Your task to perform on an android device: Open calendar and show me the first week of next month Image 0: 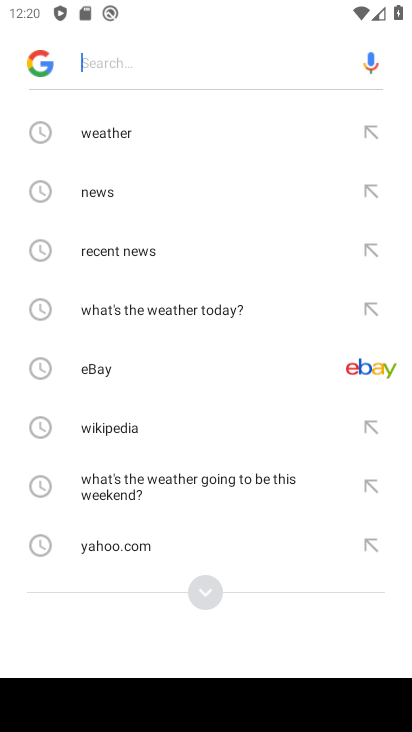
Step 0: press home button
Your task to perform on an android device: Open calendar and show me the first week of next month Image 1: 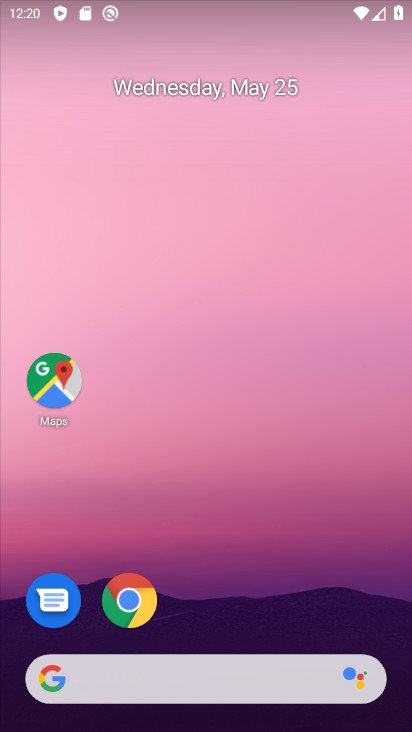
Step 1: drag from (266, 599) to (203, 108)
Your task to perform on an android device: Open calendar and show me the first week of next month Image 2: 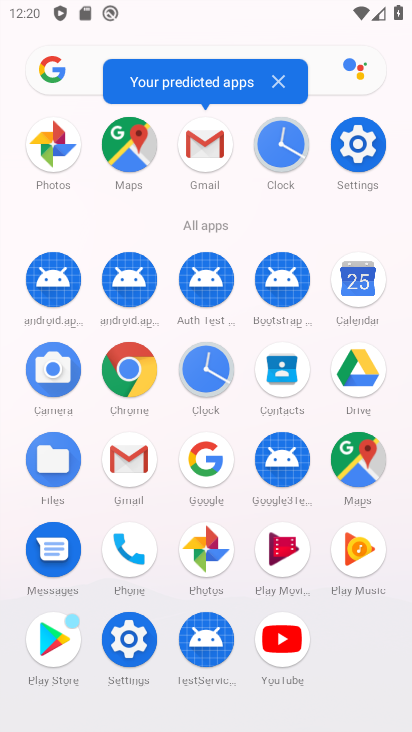
Step 2: click (360, 298)
Your task to perform on an android device: Open calendar and show me the first week of next month Image 3: 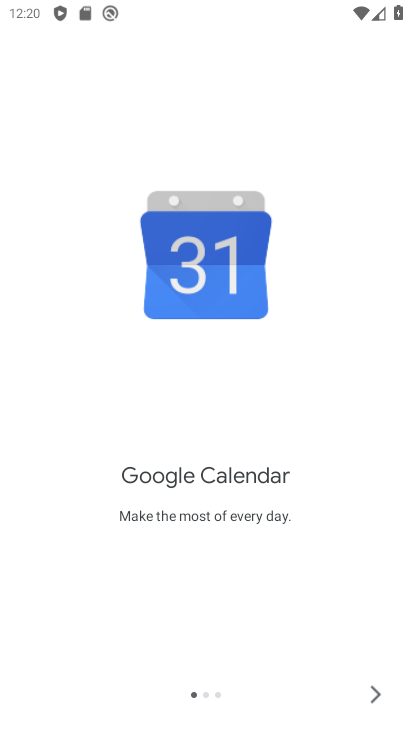
Step 3: click (375, 694)
Your task to perform on an android device: Open calendar and show me the first week of next month Image 4: 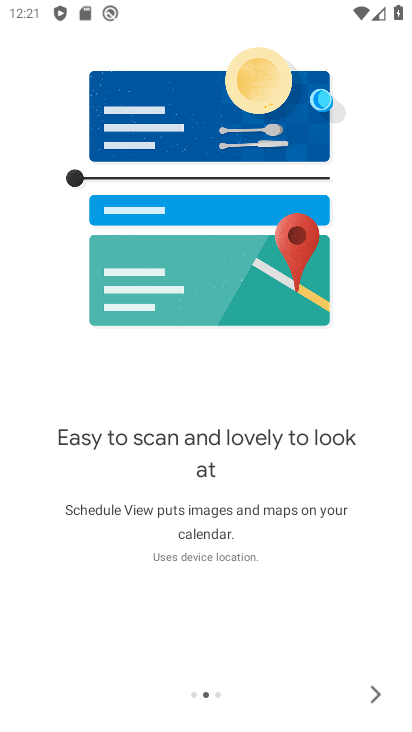
Step 4: click (374, 695)
Your task to perform on an android device: Open calendar and show me the first week of next month Image 5: 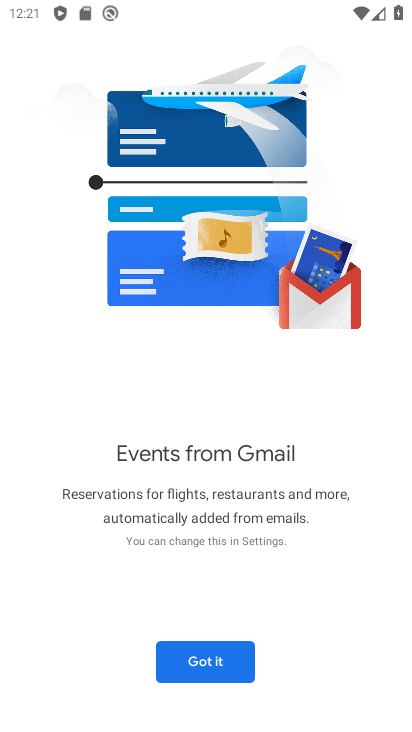
Step 5: click (193, 670)
Your task to perform on an android device: Open calendar and show me the first week of next month Image 6: 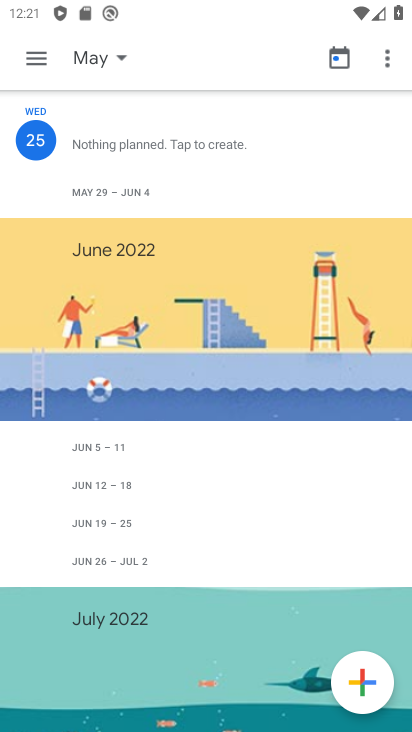
Step 6: click (37, 64)
Your task to perform on an android device: Open calendar and show me the first week of next month Image 7: 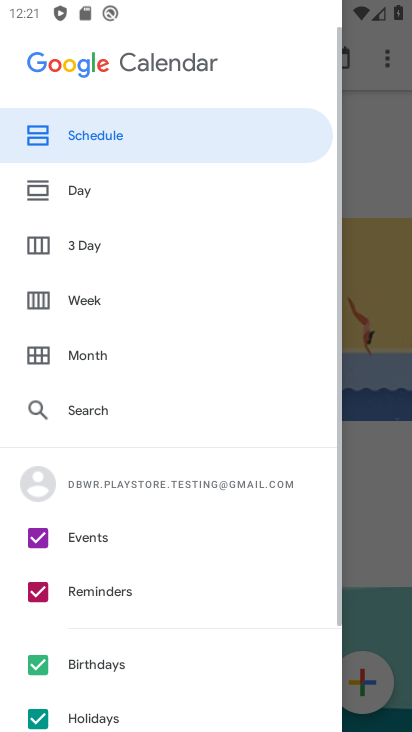
Step 7: click (123, 308)
Your task to perform on an android device: Open calendar and show me the first week of next month Image 8: 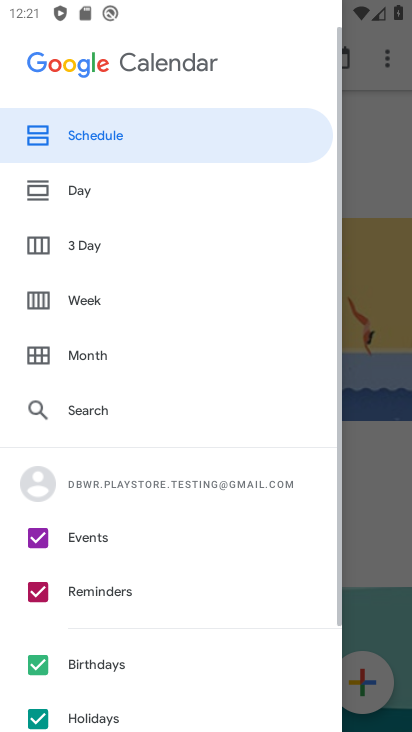
Step 8: click (89, 304)
Your task to perform on an android device: Open calendar and show me the first week of next month Image 9: 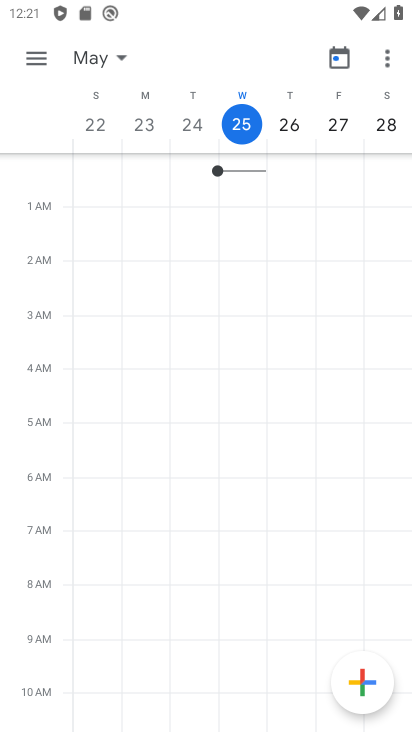
Step 9: click (128, 53)
Your task to perform on an android device: Open calendar and show me the first week of next month Image 10: 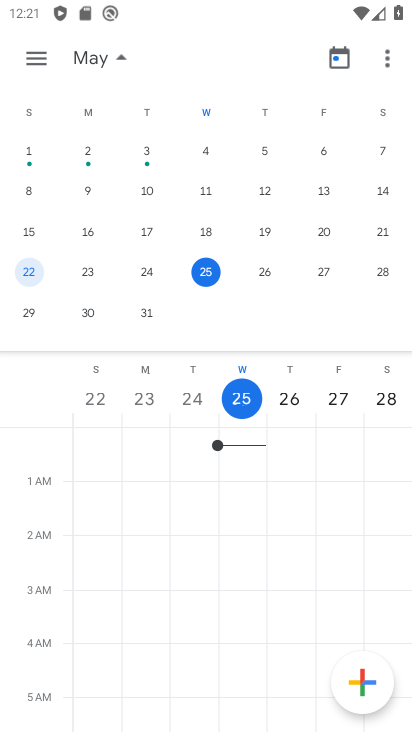
Step 10: drag from (371, 202) to (14, 222)
Your task to perform on an android device: Open calendar and show me the first week of next month Image 11: 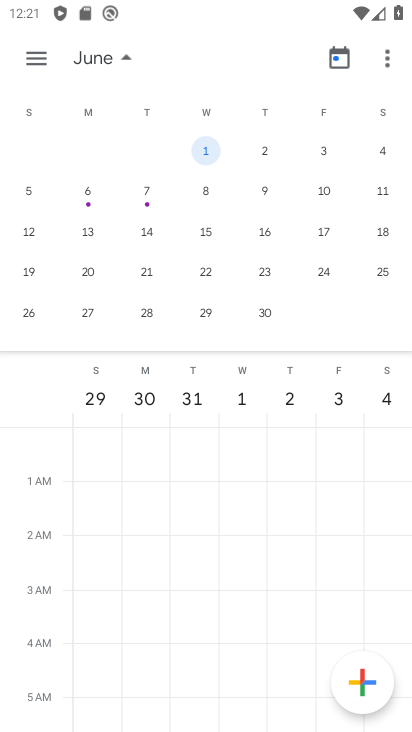
Step 11: click (207, 145)
Your task to perform on an android device: Open calendar and show me the first week of next month Image 12: 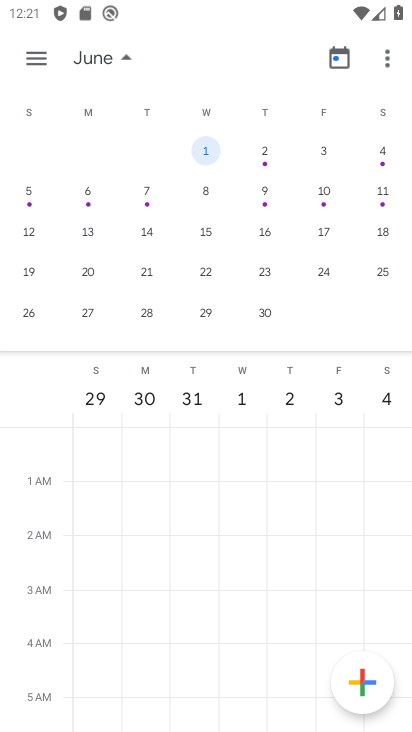
Step 12: task complete